Your task to perform on an android device: Go to internet settings Image 0: 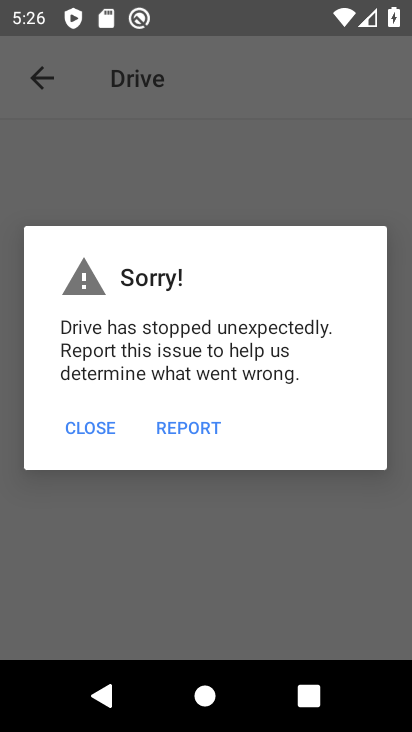
Step 0: drag from (221, 551) to (280, 554)
Your task to perform on an android device: Go to internet settings Image 1: 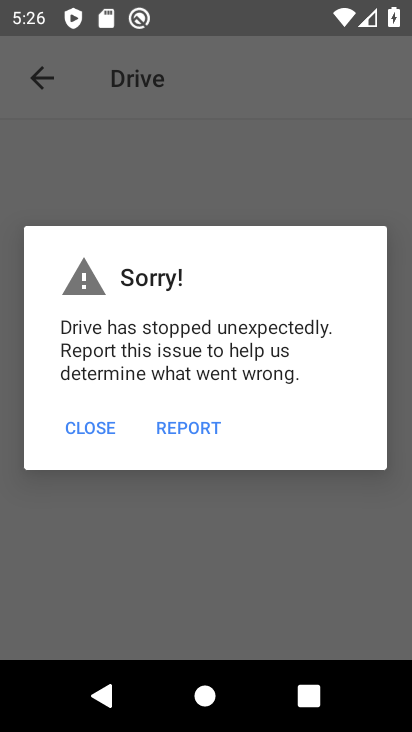
Step 1: press home button
Your task to perform on an android device: Go to internet settings Image 2: 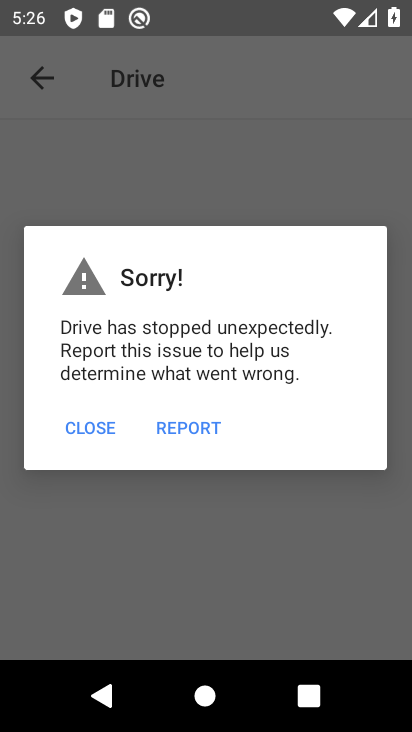
Step 2: drag from (280, 554) to (411, 551)
Your task to perform on an android device: Go to internet settings Image 3: 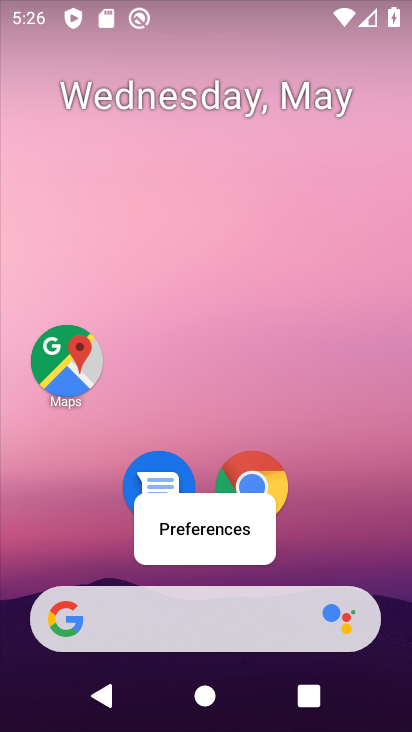
Step 3: drag from (145, 559) to (135, 159)
Your task to perform on an android device: Go to internet settings Image 4: 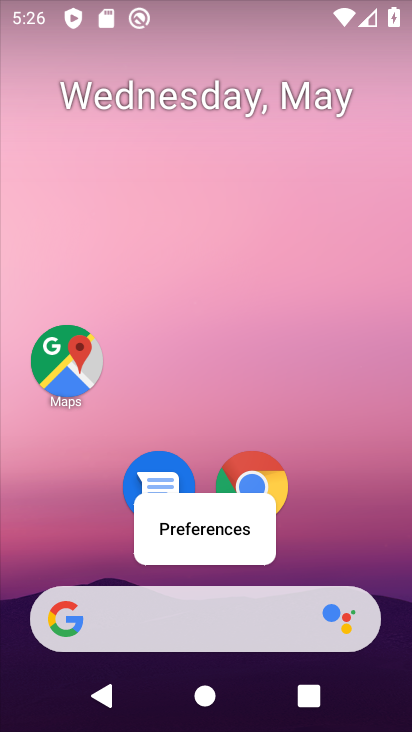
Step 4: click (111, 529)
Your task to perform on an android device: Go to internet settings Image 5: 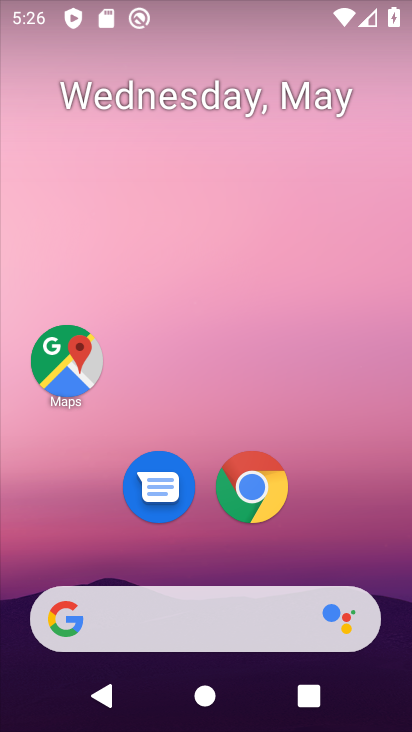
Step 5: drag from (92, 554) to (115, 103)
Your task to perform on an android device: Go to internet settings Image 6: 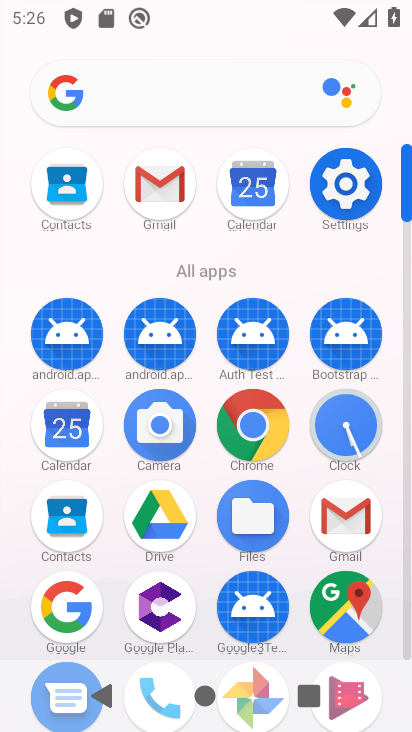
Step 6: click (343, 185)
Your task to perform on an android device: Go to internet settings Image 7: 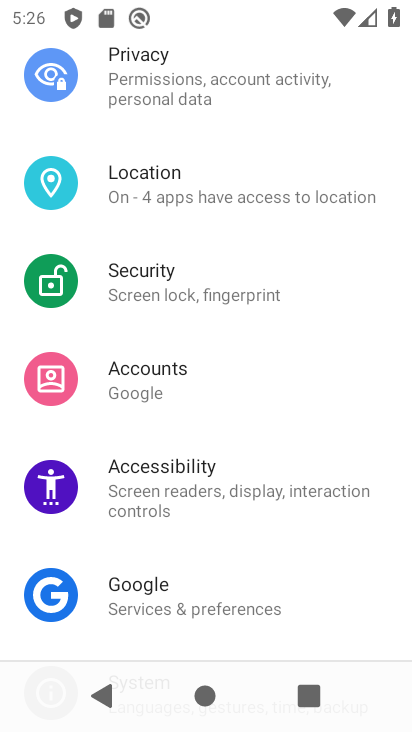
Step 7: drag from (200, 127) to (193, 617)
Your task to perform on an android device: Go to internet settings Image 8: 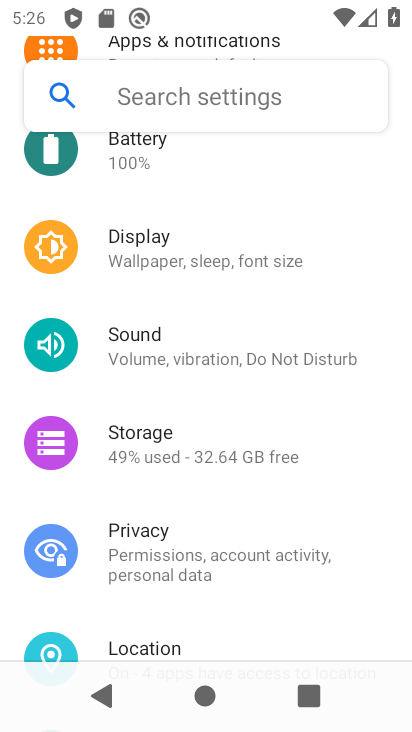
Step 8: drag from (183, 216) to (183, 616)
Your task to perform on an android device: Go to internet settings Image 9: 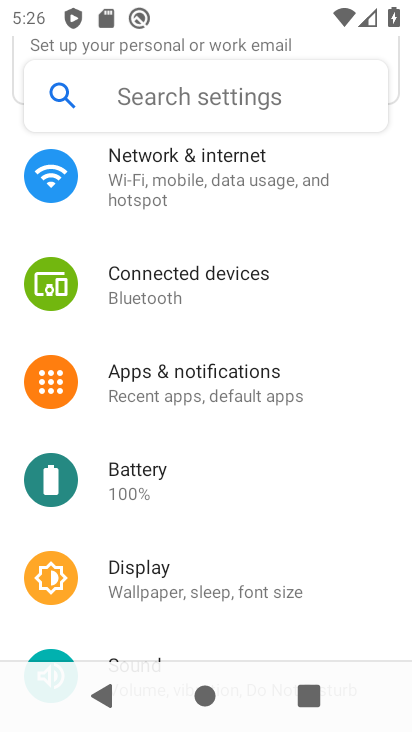
Step 9: click (137, 186)
Your task to perform on an android device: Go to internet settings Image 10: 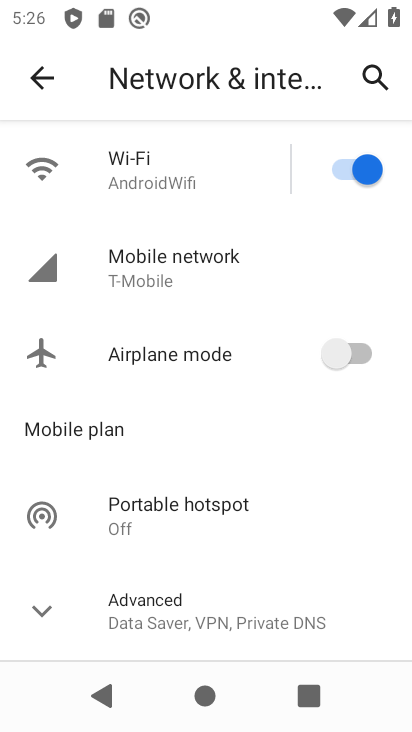
Step 10: task complete